Your task to perform on an android device: Open network settings Image 0: 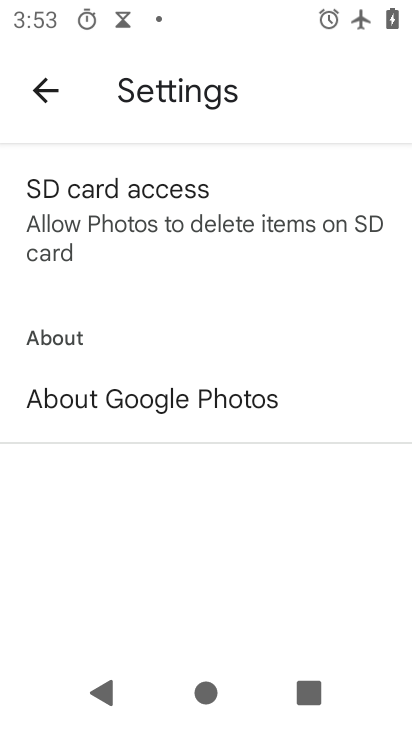
Step 0: press home button
Your task to perform on an android device: Open network settings Image 1: 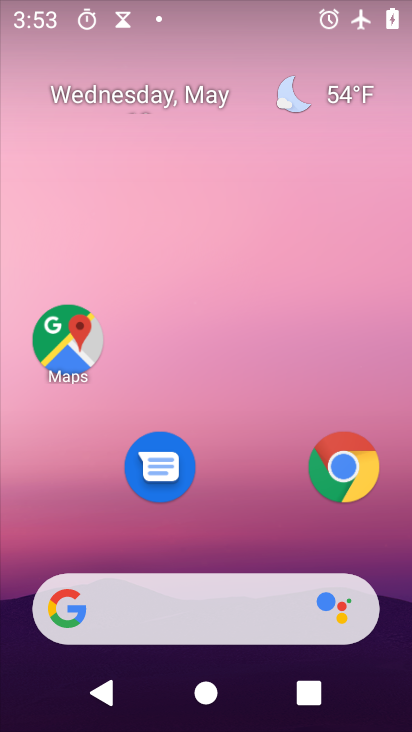
Step 1: drag from (271, 538) to (19, 15)
Your task to perform on an android device: Open network settings Image 2: 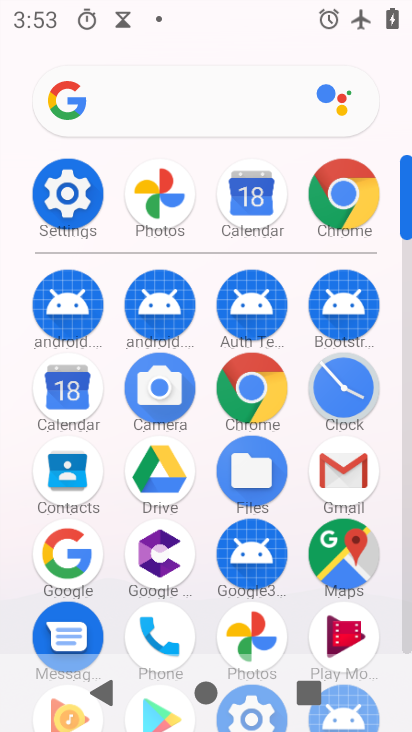
Step 2: click (81, 178)
Your task to perform on an android device: Open network settings Image 3: 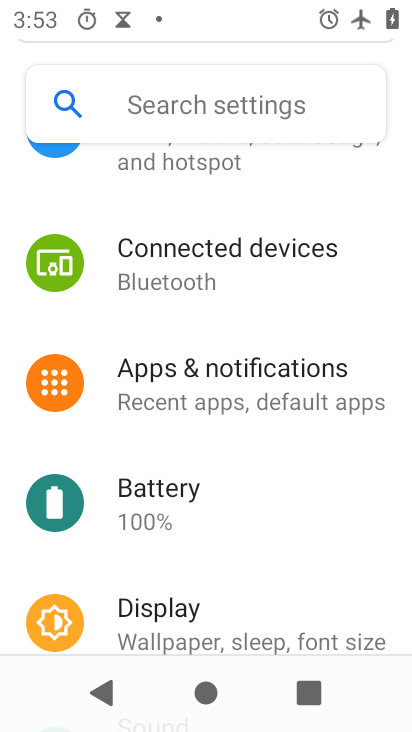
Step 3: click (163, 183)
Your task to perform on an android device: Open network settings Image 4: 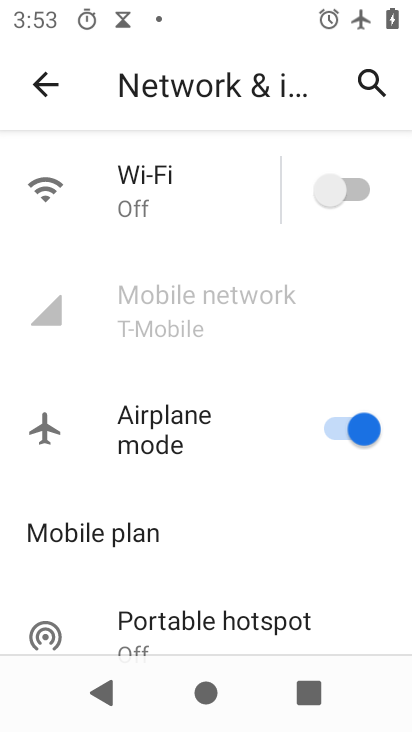
Step 4: task complete